Your task to perform on an android device: check data usage Image 0: 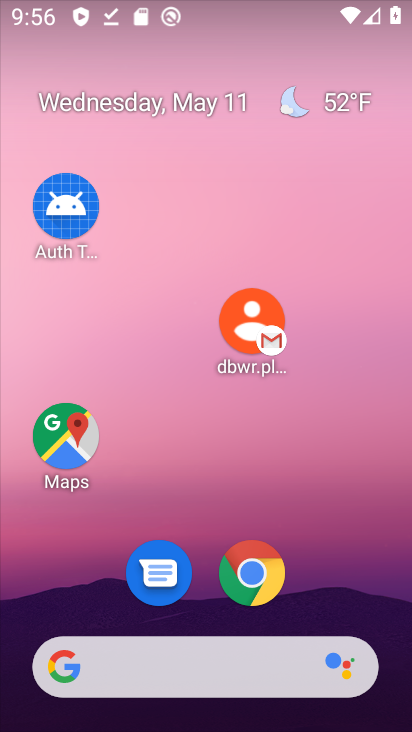
Step 0: drag from (383, 573) to (150, 87)
Your task to perform on an android device: check data usage Image 1: 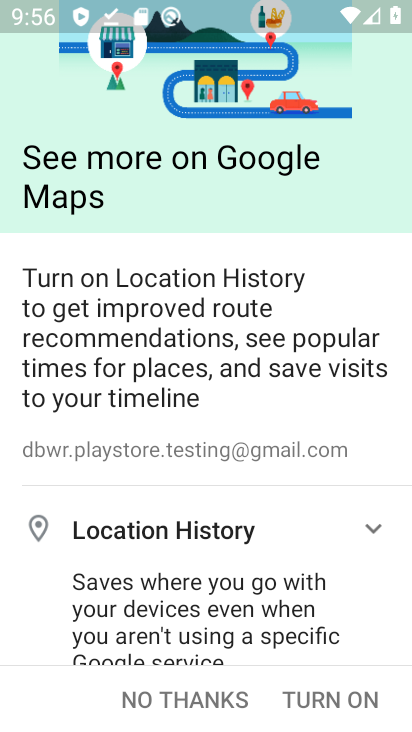
Step 1: press back button
Your task to perform on an android device: check data usage Image 2: 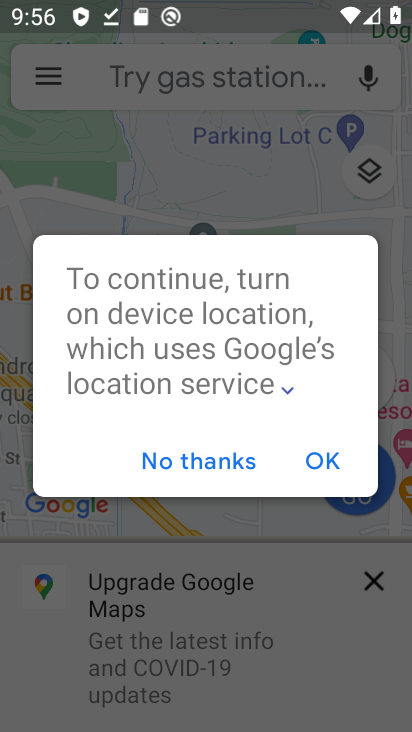
Step 2: click (202, 461)
Your task to perform on an android device: check data usage Image 3: 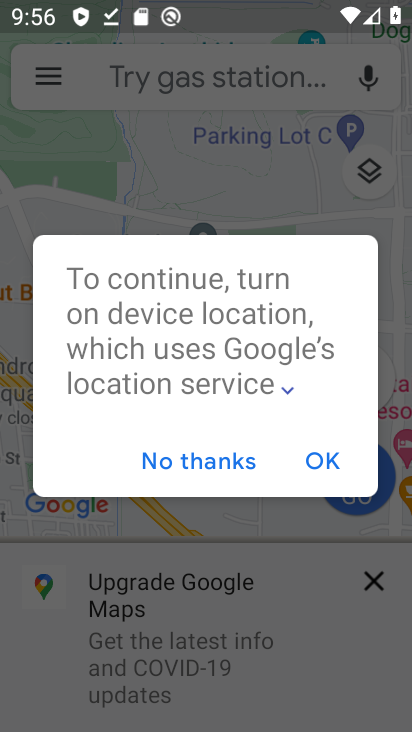
Step 3: press home button
Your task to perform on an android device: check data usage Image 4: 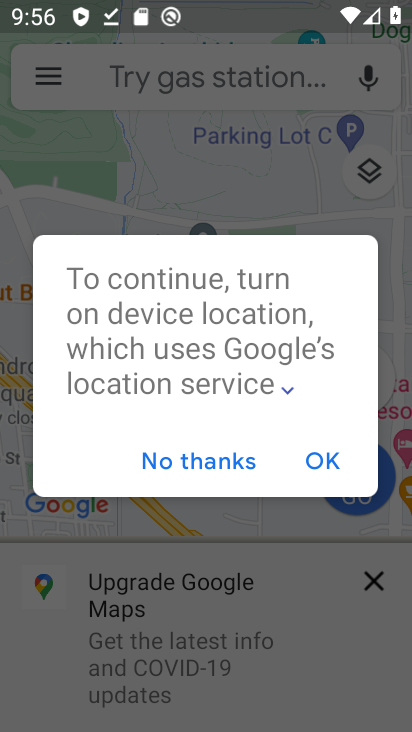
Step 4: press home button
Your task to perform on an android device: check data usage Image 5: 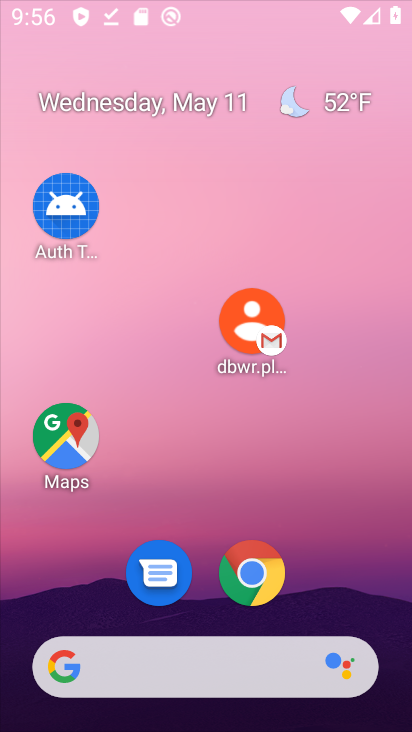
Step 5: press home button
Your task to perform on an android device: check data usage Image 6: 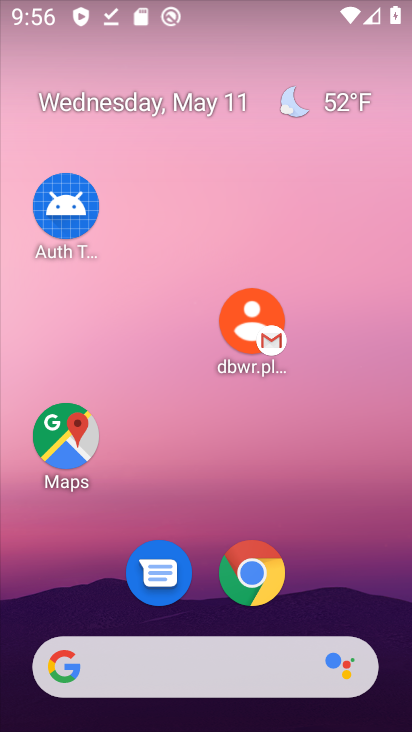
Step 6: press home button
Your task to perform on an android device: check data usage Image 7: 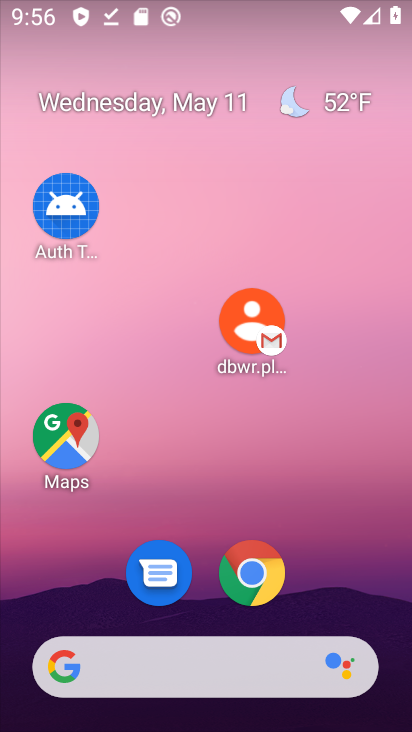
Step 7: drag from (347, 594) to (156, 125)
Your task to perform on an android device: check data usage Image 8: 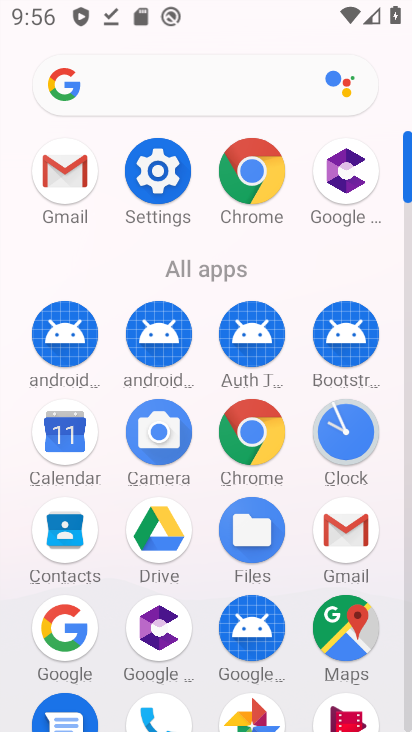
Step 8: click (147, 177)
Your task to perform on an android device: check data usage Image 9: 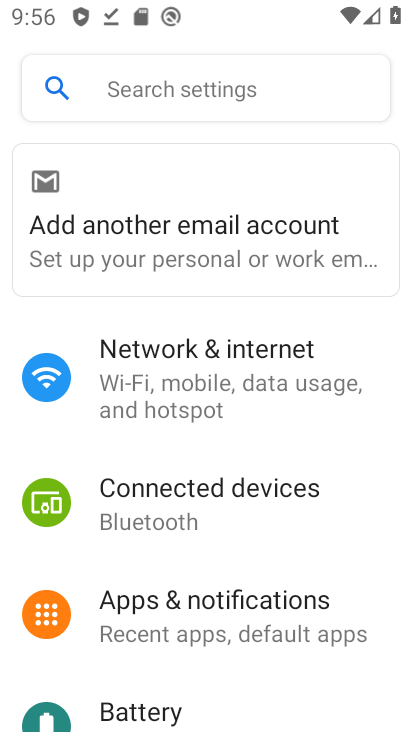
Step 9: click (146, 170)
Your task to perform on an android device: check data usage Image 10: 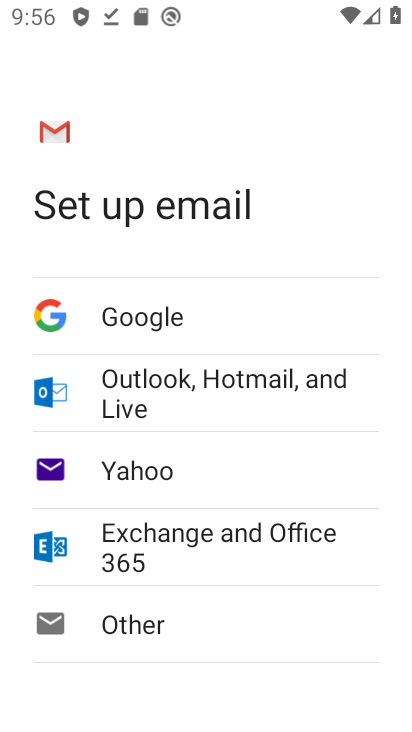
Step 10: click (165, 378)
Your task to perform on an android device: check data usage Image 11: 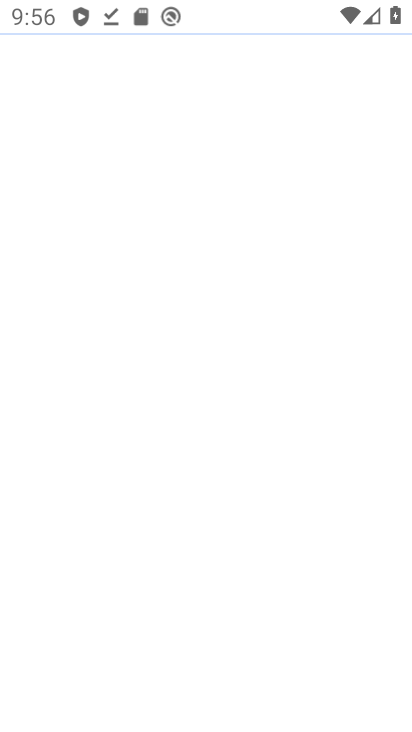
Step 11: press back button
Your task to perform on an android device: check data usage Image 12: 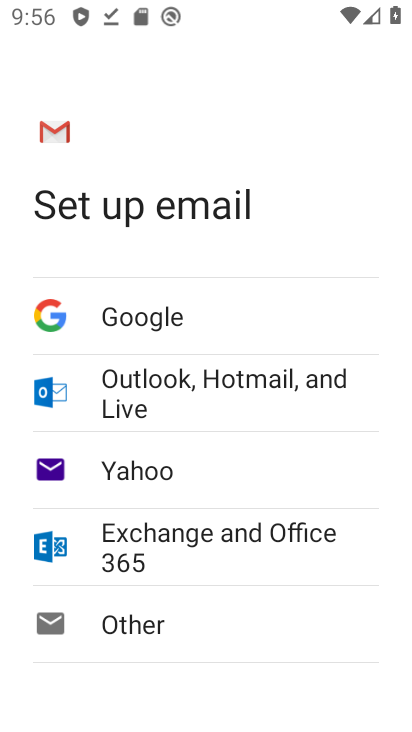
Step 12: press back button
Your task to perform on an android device: check data usage Image 13: 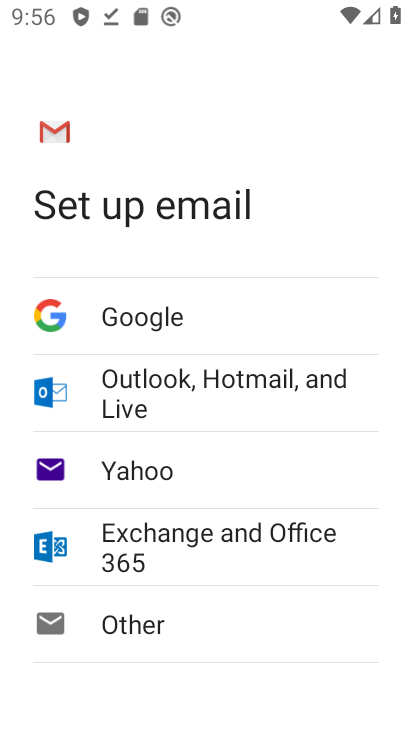
Step 13: press back button
Your task to perform on an android device: check data usage Image 14: 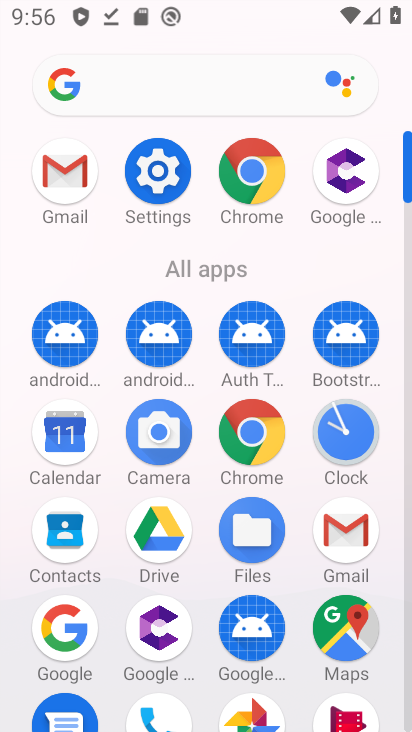
Step 14: click (166, 184)
Your task to perform on an android device: check data usage Image 15: 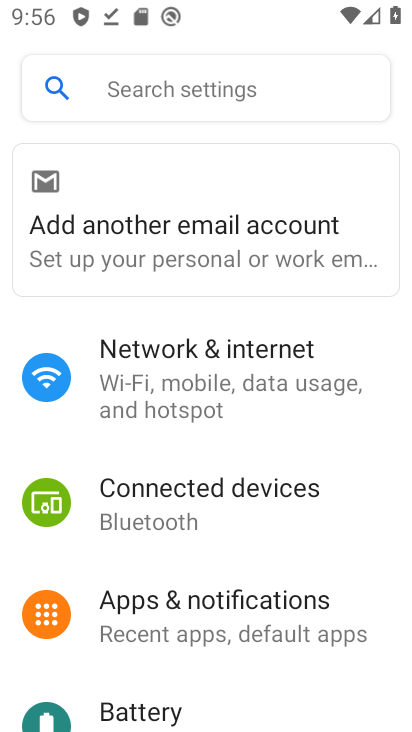
Step 15: click (197, 369)
Your task to perform on an android device: check data usage Image 16: 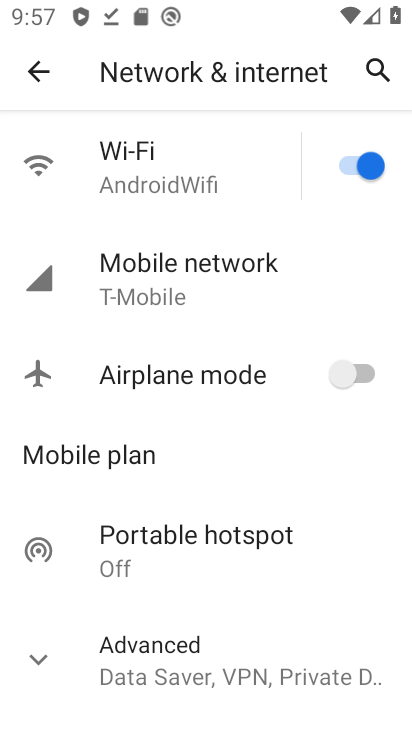
Step 16: task complete